Your task to perform on an android device: Go to Amazon Image 0: 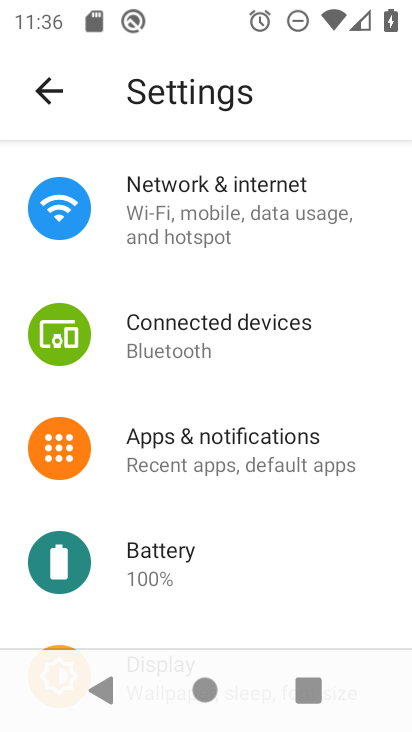
Step 0: press home button
Your task to perform on an android device: Go to Amazon Image 1: 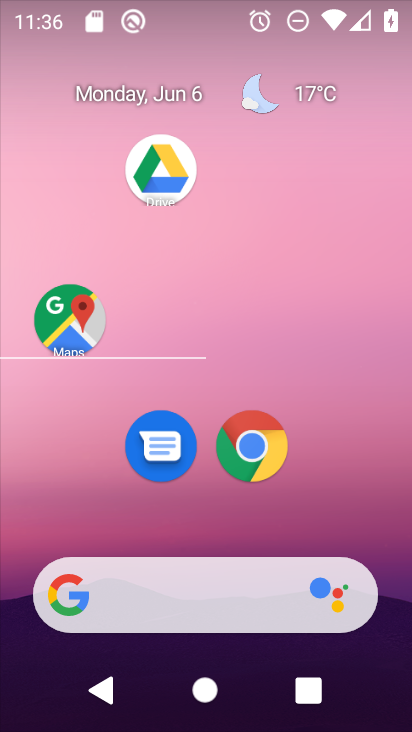
Step 1: click (263, 450)
Your task to perform on an android device: Go to Amazon Image 2: 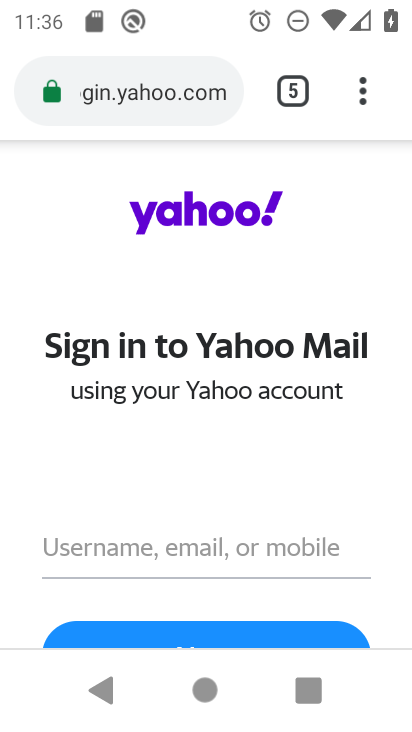
Step 2: click (294, 94)
Your task to perform on an android device: Go to Amazon Image 3: 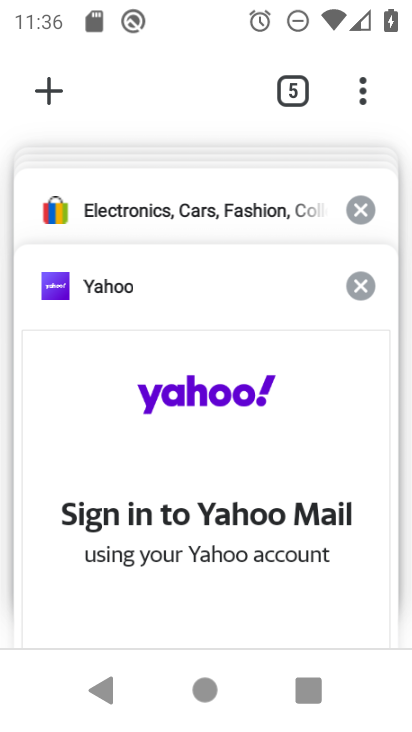
Step 3: click (42, 101)
Your task to perform on an android device: Go to Amazon Image 4: 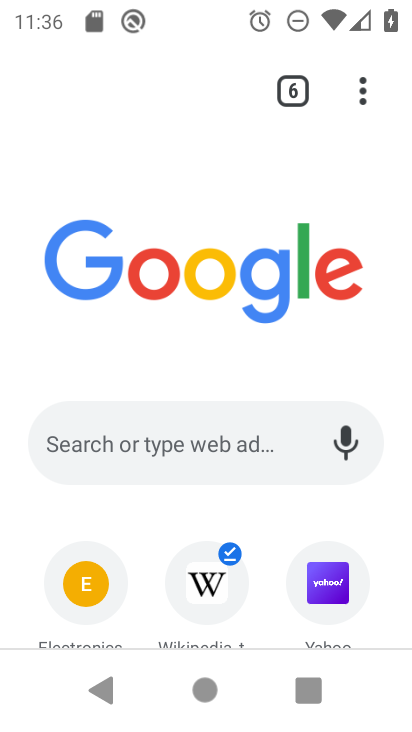
Step 4: drag from (154, 520) to (143, 79)
Your task to perform on an android device: Go to Amazon Image 5: 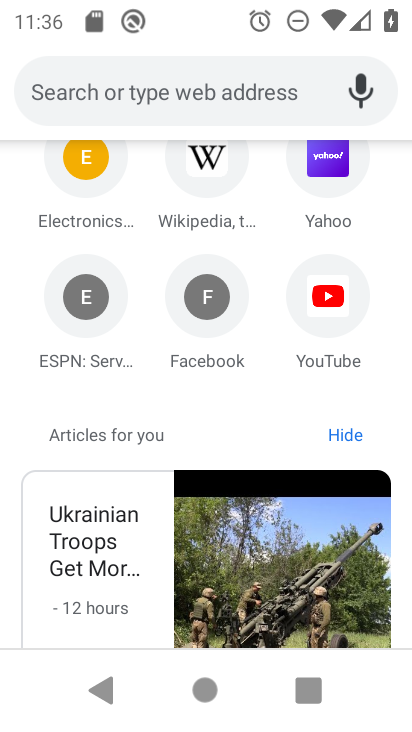
Step 5: click (273, 83)
Your task to perform on an android device: Go to Amazon Image 6: 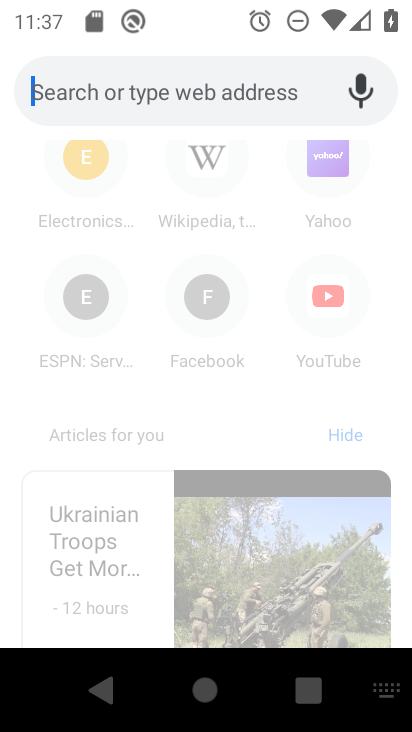
Step 6: type "amazon"
Your task to perform on an android device: Go to Amazon Image 7: 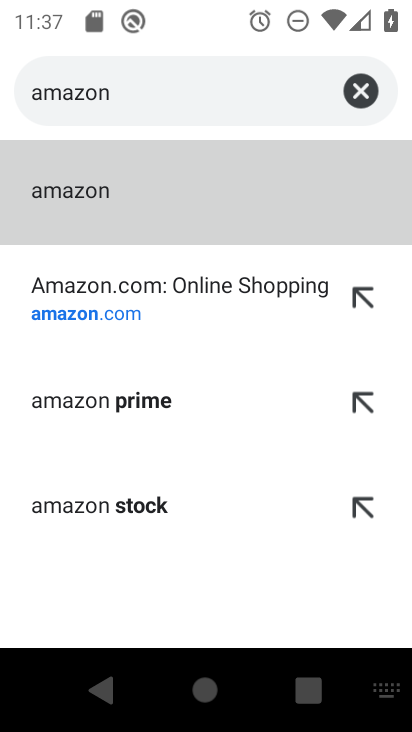
Step 7: click (149, 309)
Your task to perform on an android device: Go to Amazon Image 8: 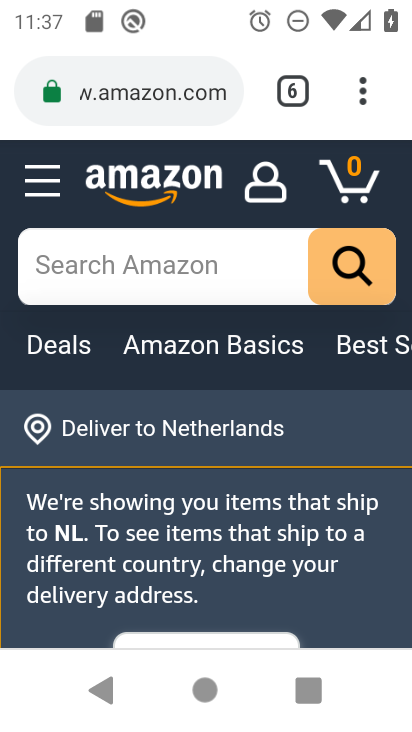
Step 8: task complete